Your task to perform on an android device: Open calendar and show me the fourth week of next month Image 0: 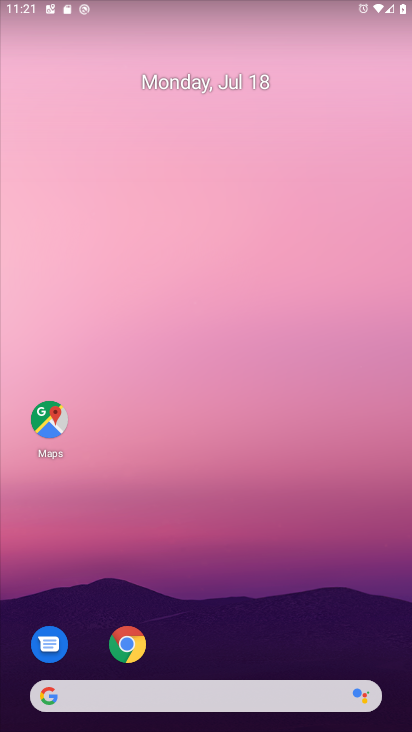
Step 0: drag from (227, 648) to (197, 166)
Your task to perform on an android device: Open calendar and show me the fourth week of next month Image 1: 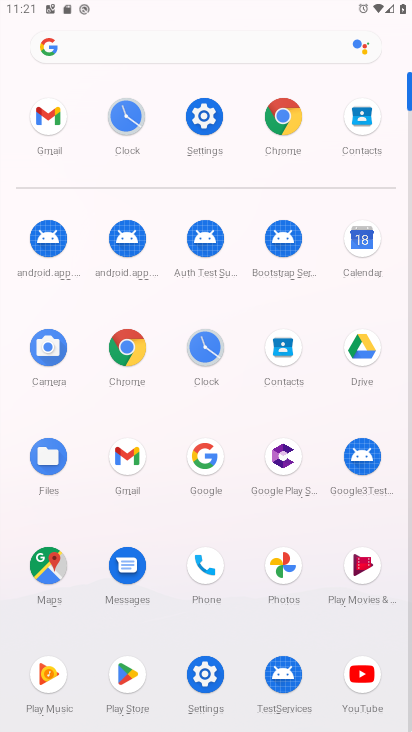
Step 1: click (364, 131)
Your task to perform on an android device: Open calendar and show me the fourth week of next month Image 2: 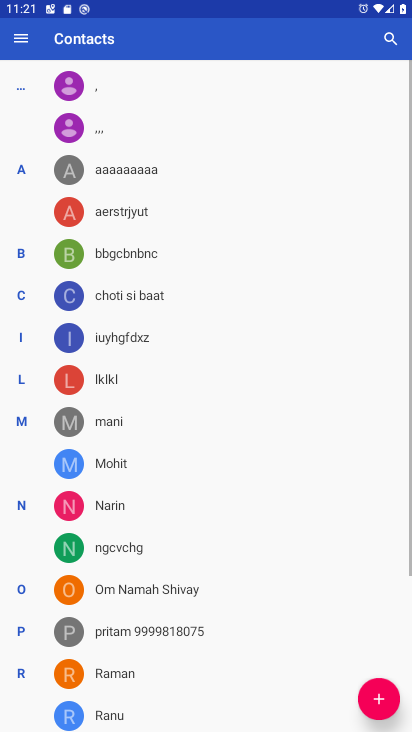
Step 2: task complete